Your task to perform on an android device: Do I have any events tomorrow? Image 0: 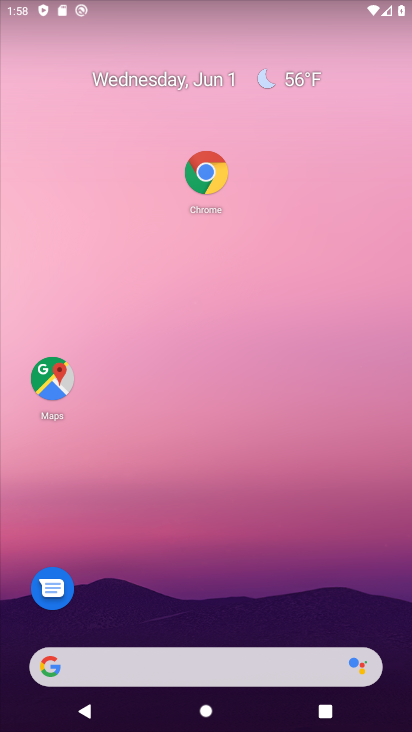
Step 0: drag from (241, 530) to (271, 34)
Your task to perform on an android device: Do I have any events tomorrow? Image 1: 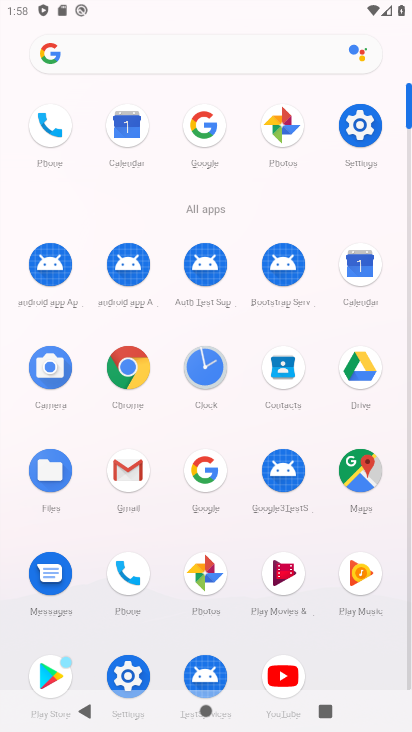
Step 1: click (360, 275)
Your task to perform on an android device: Do I have any events tomorrow? Image 2: 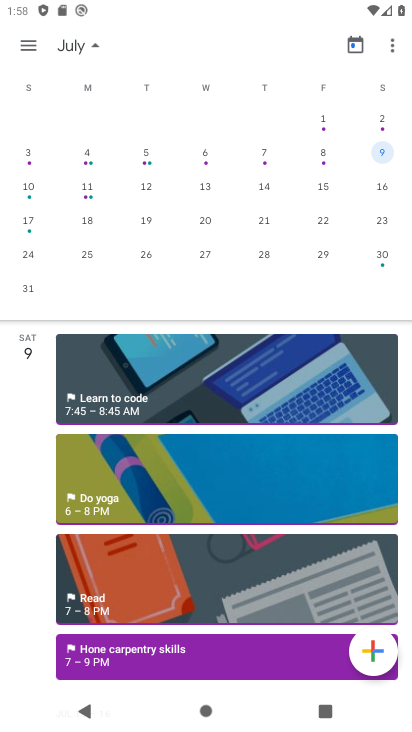
Step 2: drag from (62, 266) to (410, 236)
Your task to perform on an android device: Do I have any events tomorrow? Image 3: 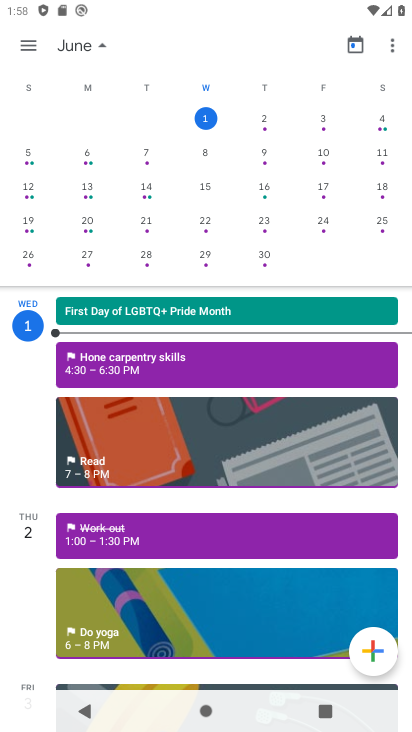
Step 3: click (267, 118)
Your task to perform on an android device: Do I have any events tomorrow? Image 4: 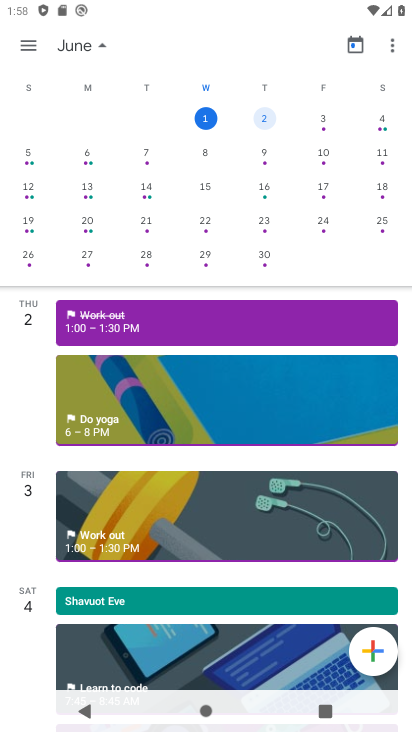
Step 4: task complete